Your task to perform on an android device: Open sound settings Image 0: 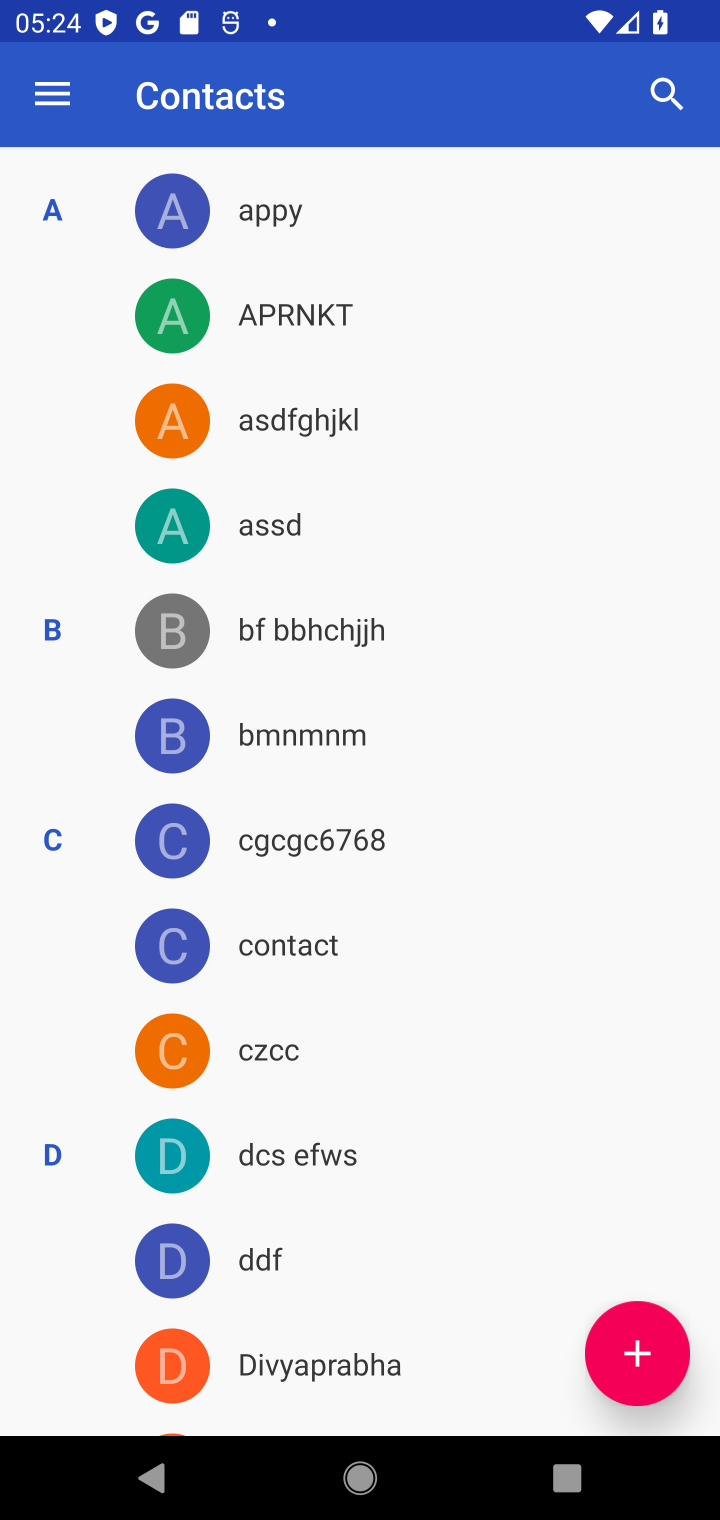
Step 0: press home button
Your task to perform on an android device: Open sound settings Image 1: 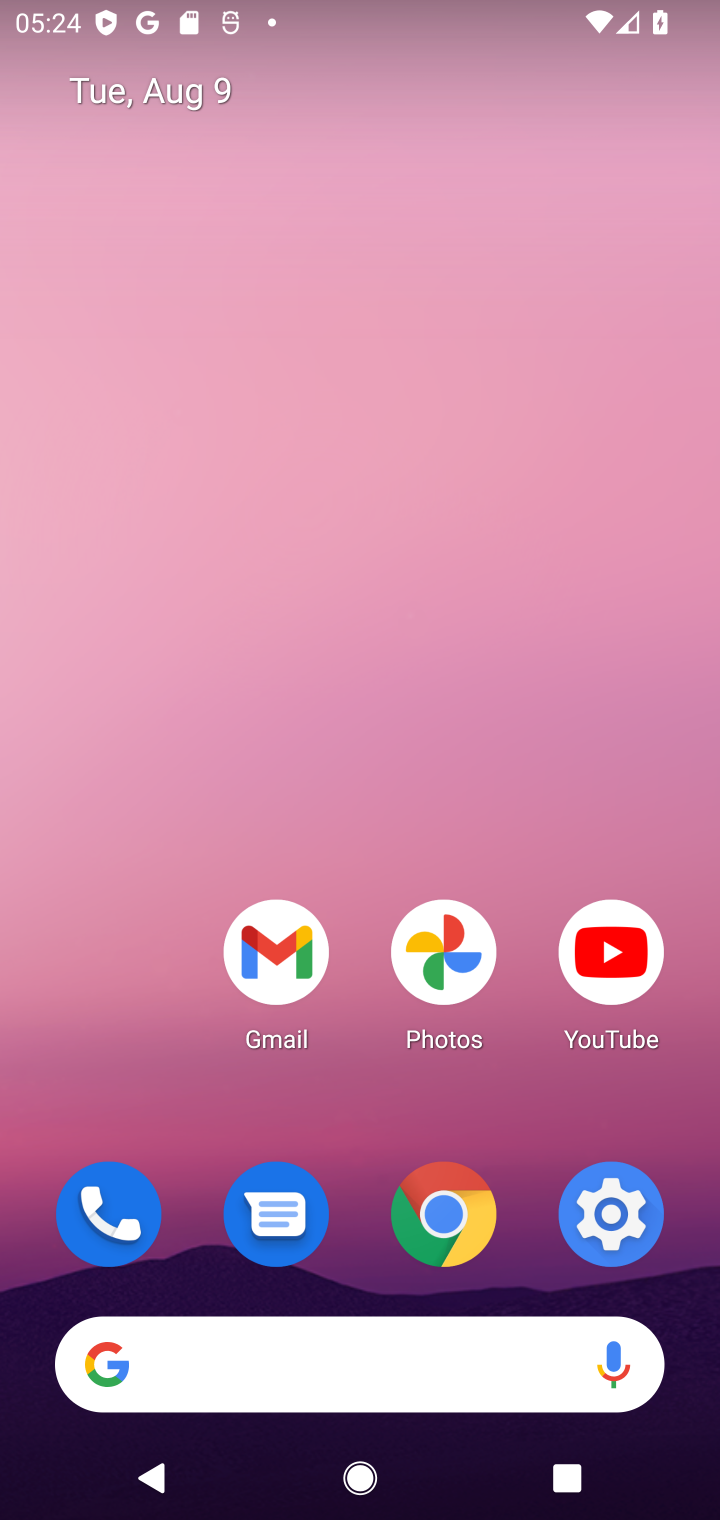
Step 1: drag from (384, 1336) to (324, 427)
Your task to perform on an android device: Open sound settings Image 2: 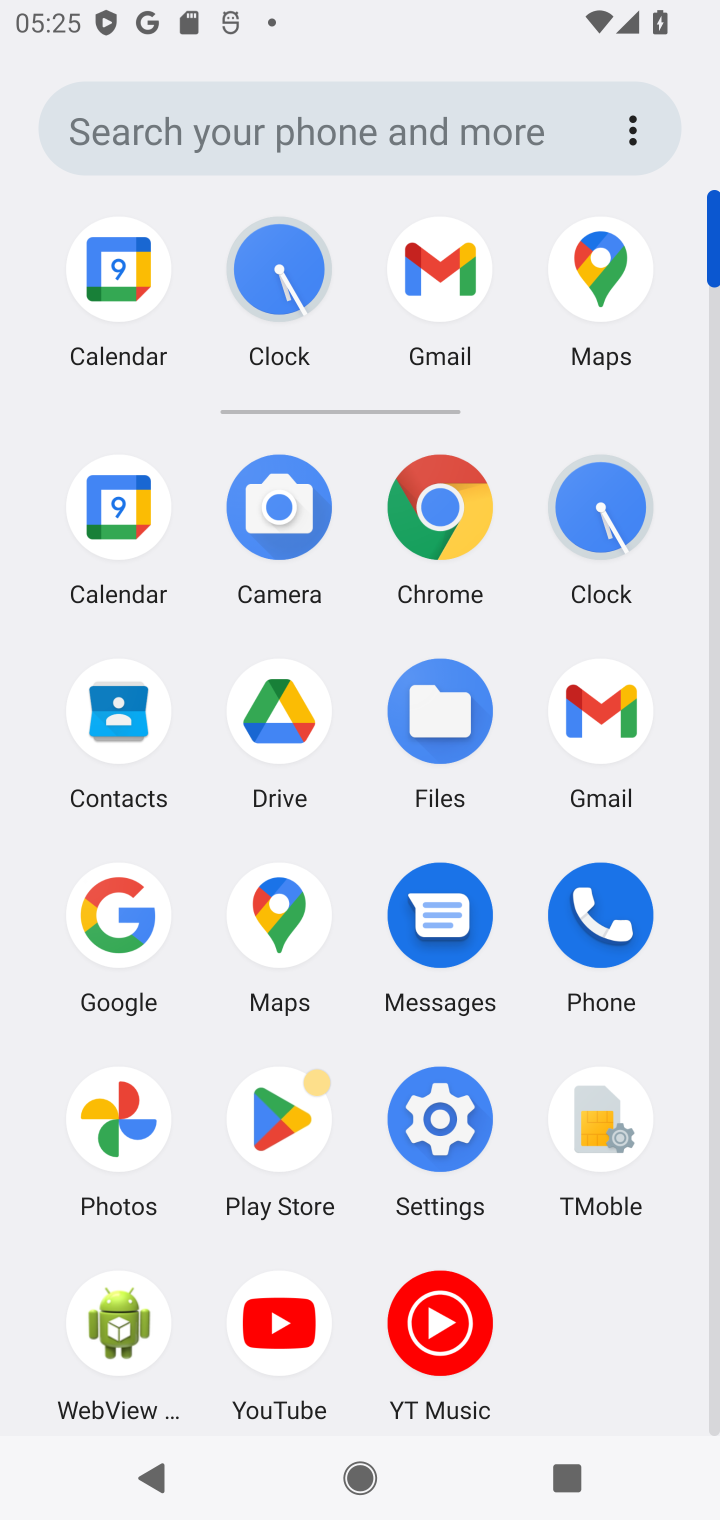
Step 2: click (462, 1128)
Your task to perform on an android device: Open sound settings Image 3: 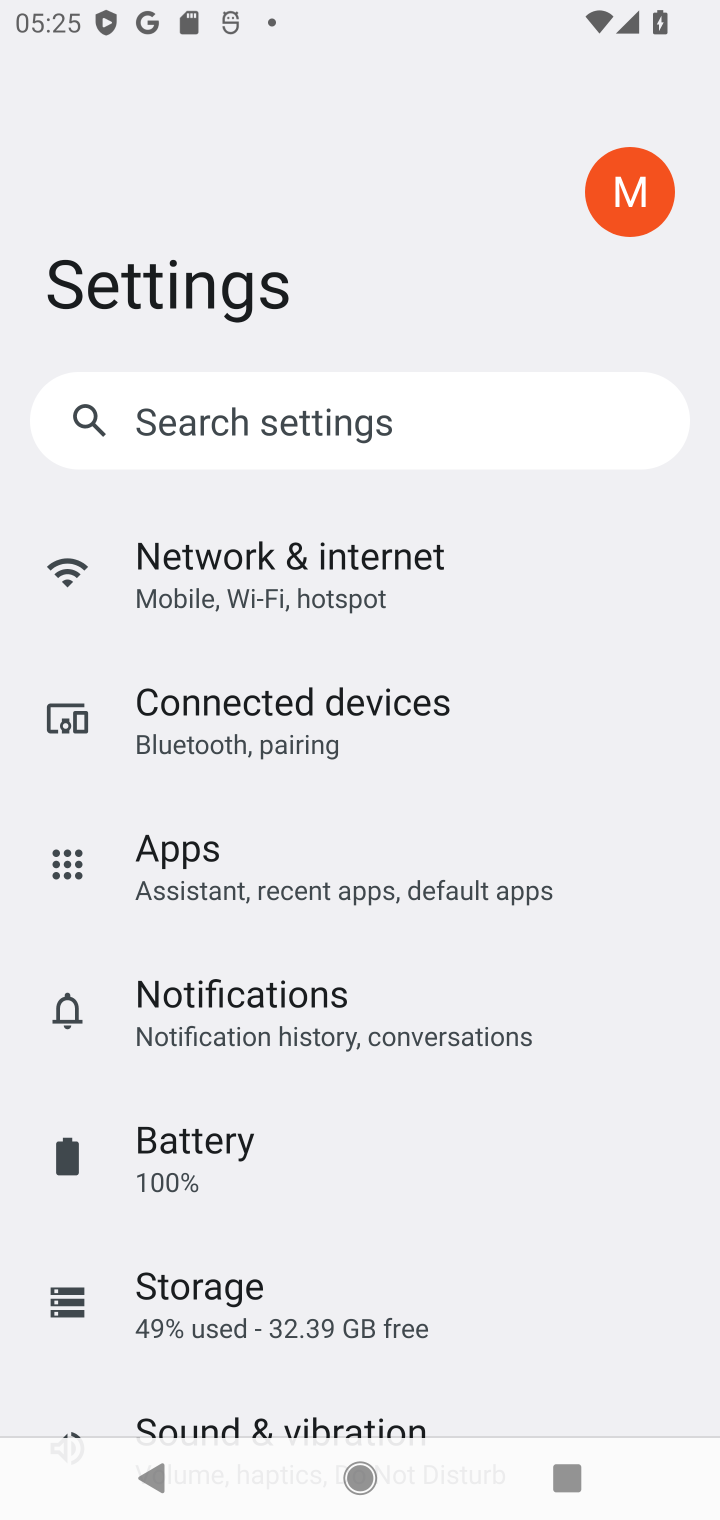
Step 3: drag from (251, 1280) to (388, 793)
Your task to perform on an android device: Open sound settings Image 4: 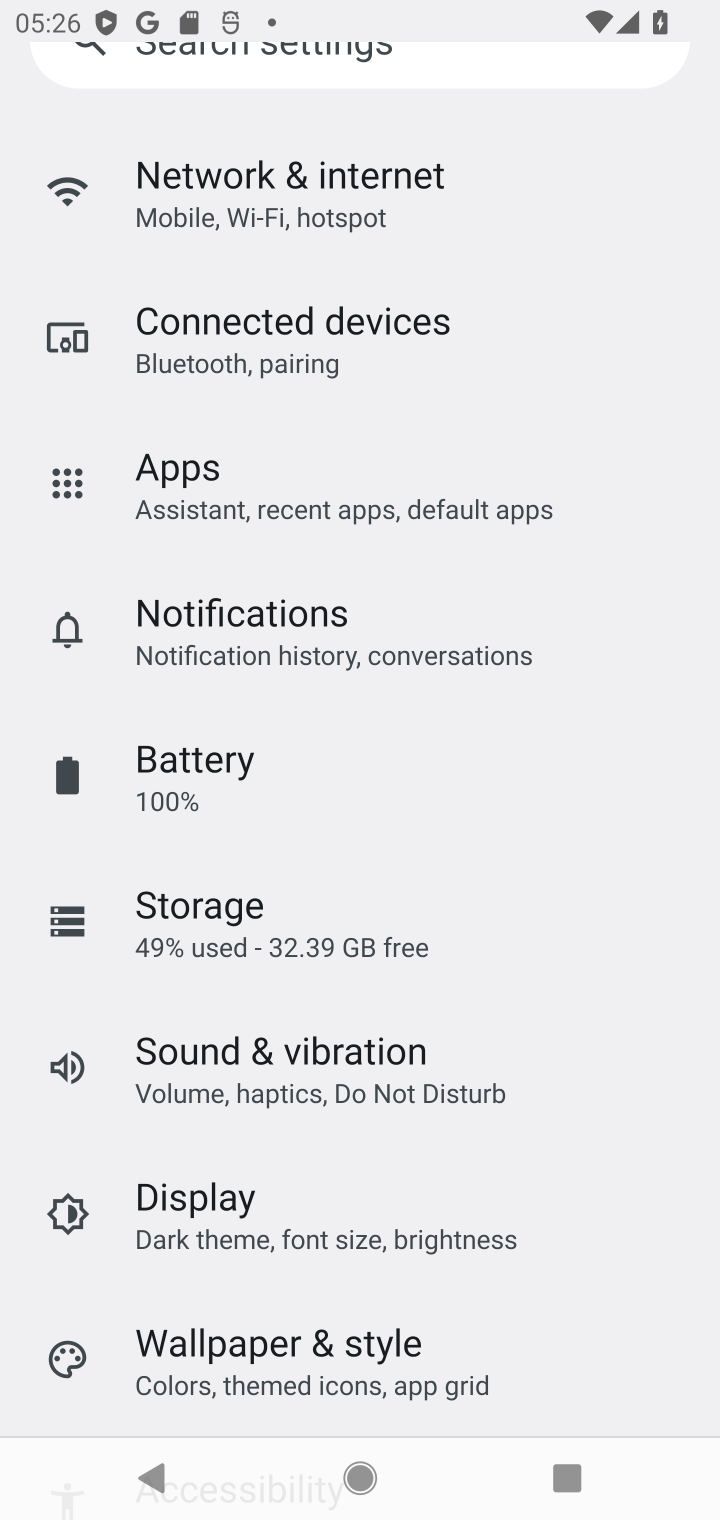
Step 4: click (298, 1071)
Your task to perform on an android device: Open sound settings Image 5: 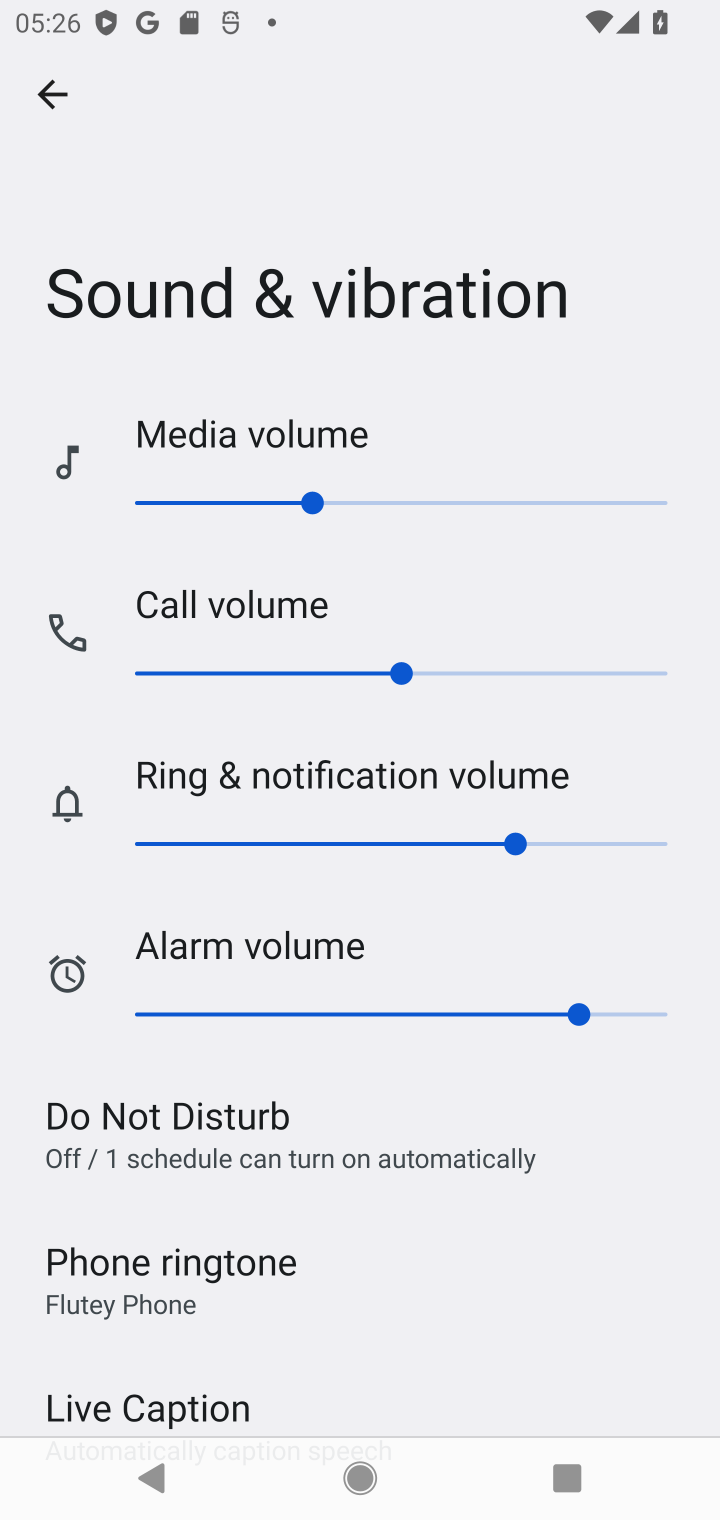
Step 5: task complete